Your task to perform on an android device: Open calendar and show me the third week of next month Image 0: 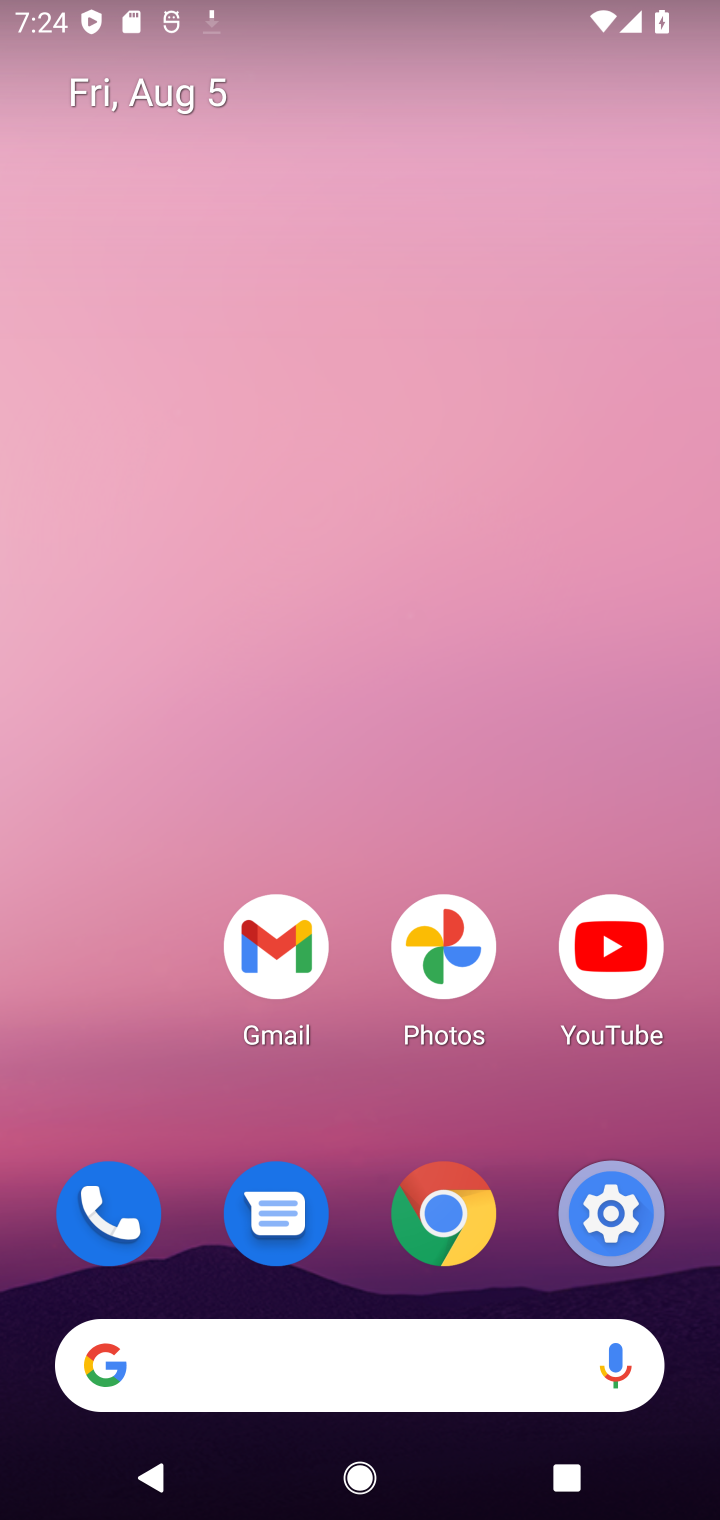
Step 0: drag from (147, 1356) to (418, 171)
Your task to perform on an android device: Open calendar and show me the third week of next month Image 1: 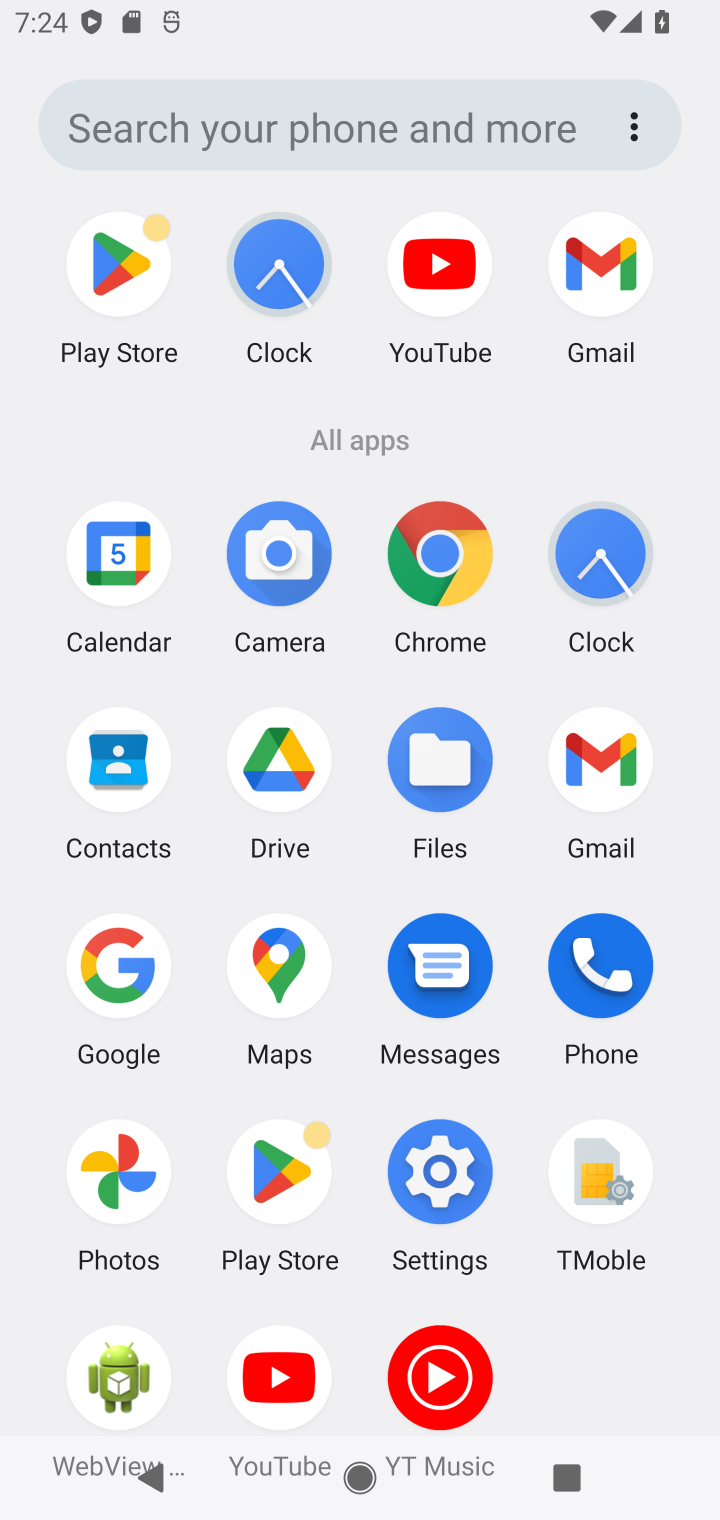
Step 1: click (99, 543)
Your task to perform on an android device: Open calendar and show me the third week of next month Image 2: 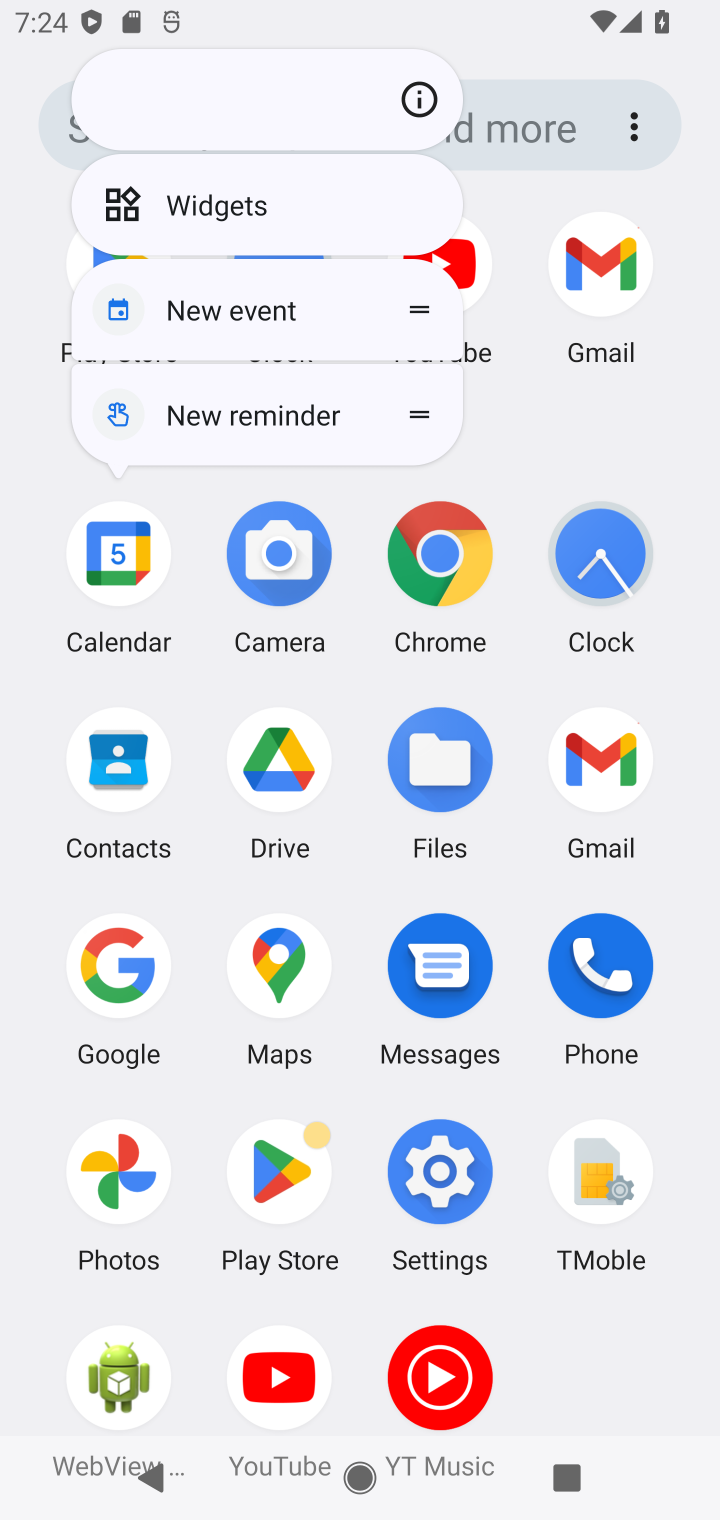
Step 2: click (99, 543)
Your task to perform on an android device: Open calendar and show me the third week of next month Image 3: 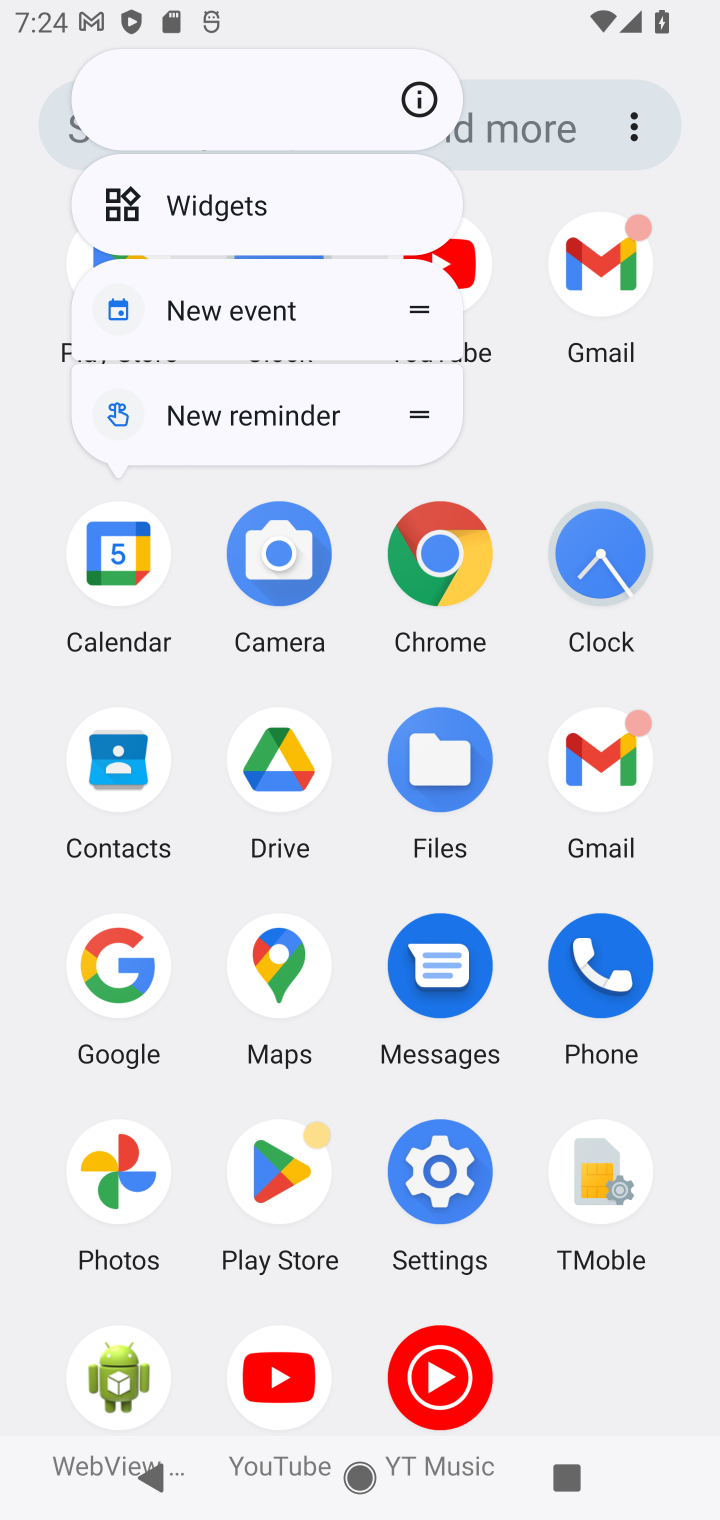
Step 3: click (126, 572)
Your task to perform on an android device: Open calendar and show me the third week of next month Image 4: 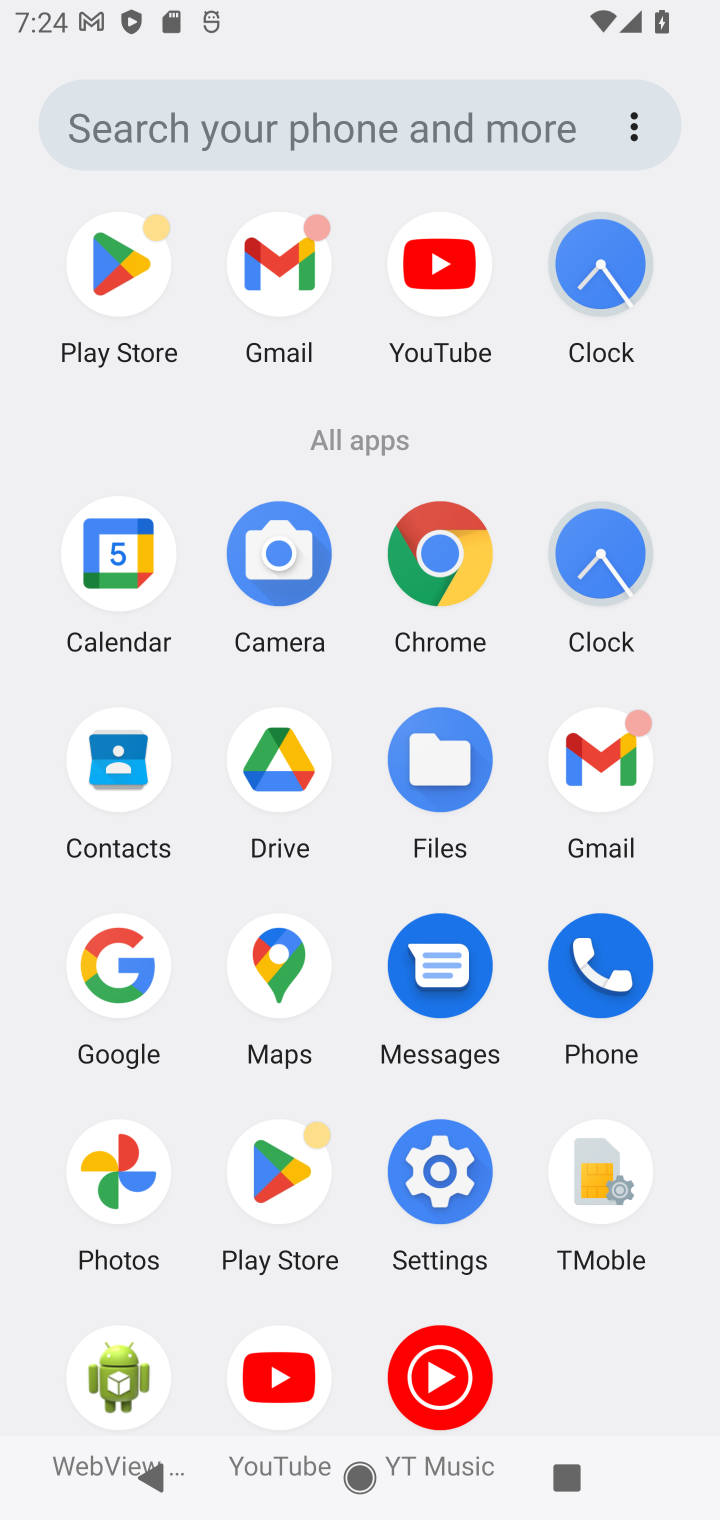
Step 4: click (126, 572)
Your task to perform on an android device: Open calendar and show me the third week of next month Image 5: 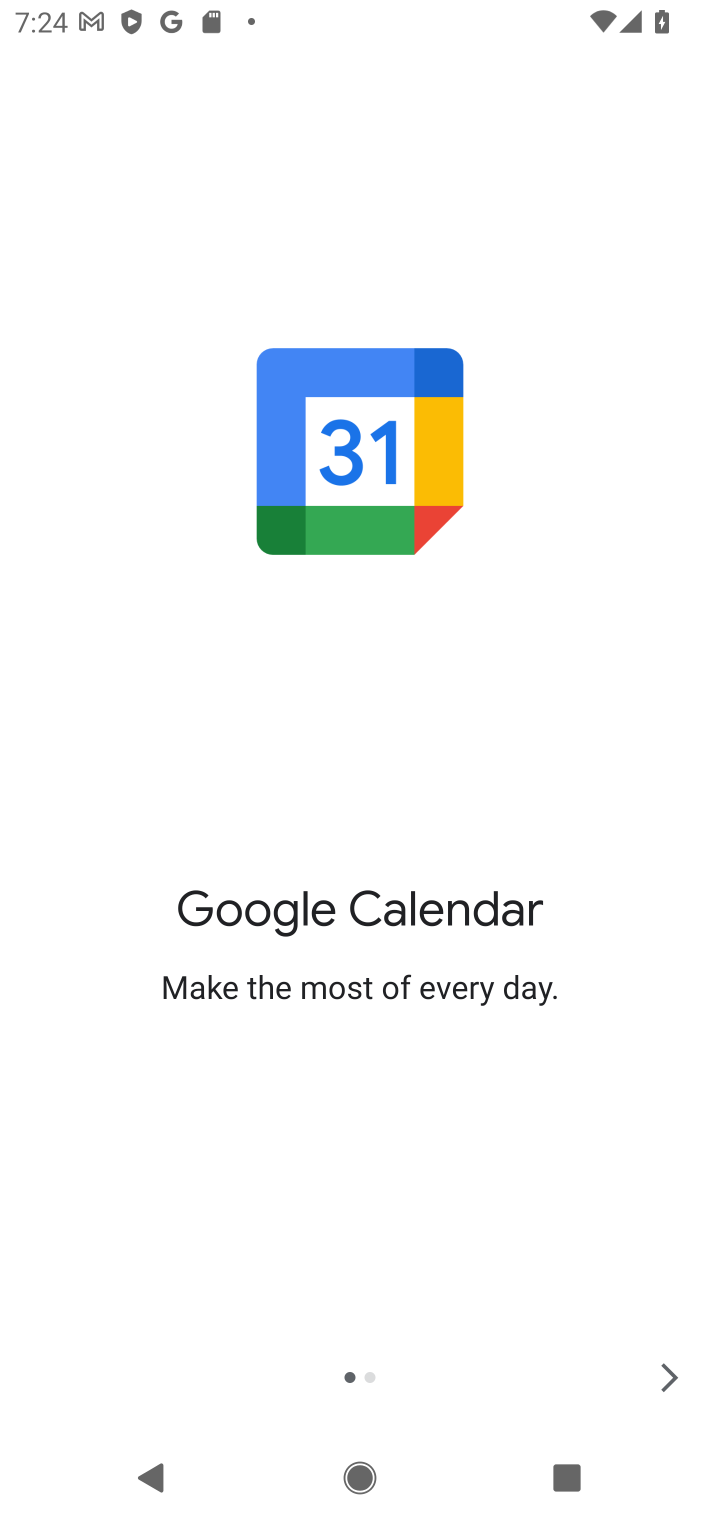
Step 5: click (643, 1364)
Your task to perform on an android device: Open calendar and show me the third week of next month Image 6: 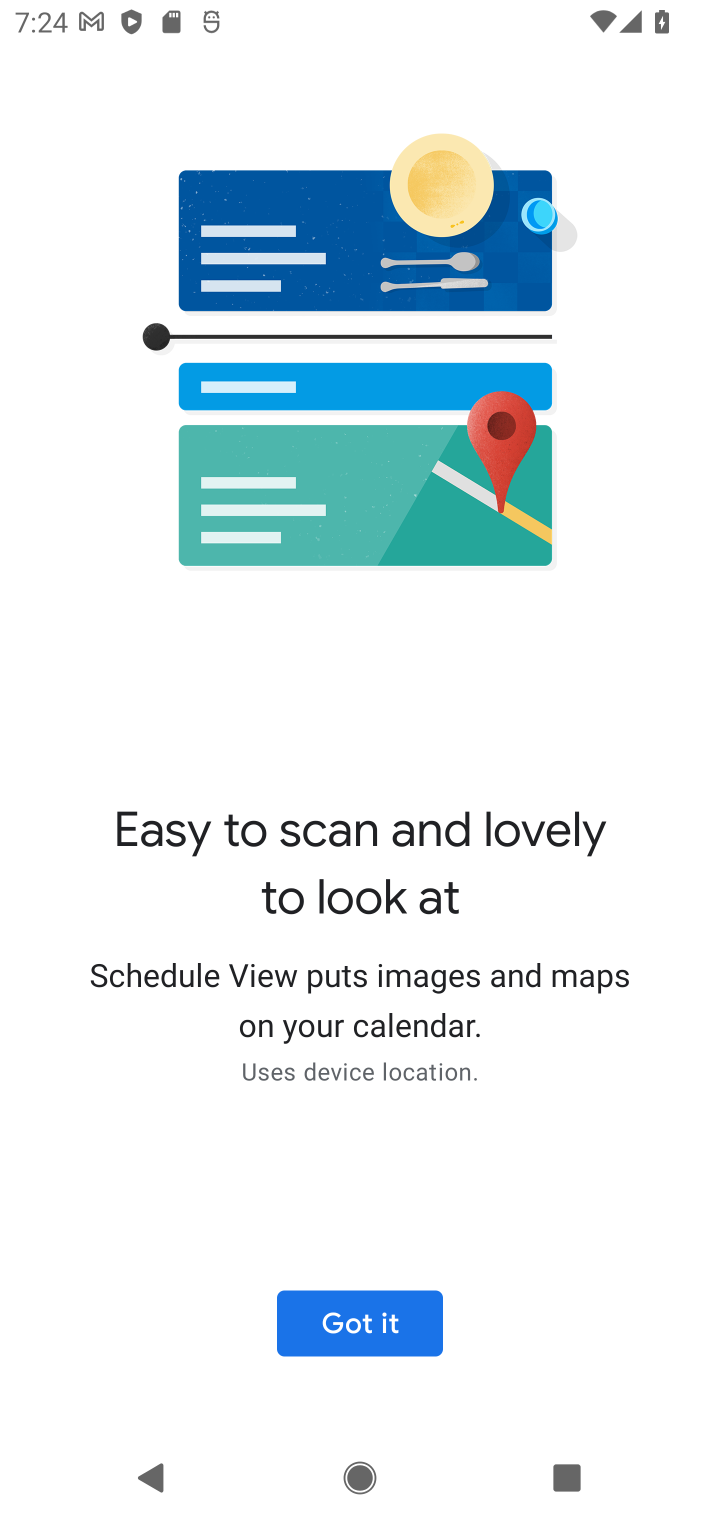
Step 6: click (390, 1328)
Your task to perform on an android device: Open calendar and show me the third week of next month Image 7: 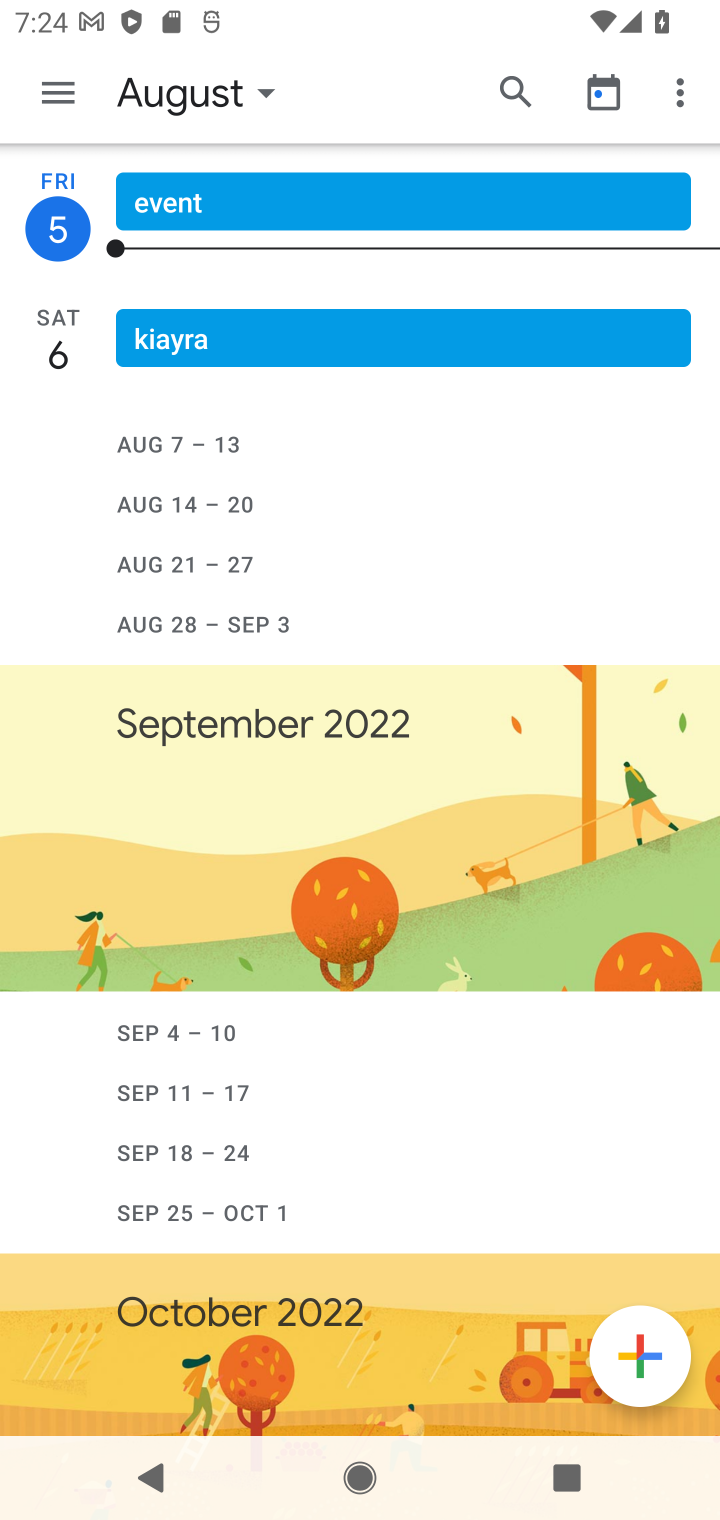
Step 7: click (79, 93)
Your task to perform on an android device: Open calendar and show me the third week of next month Image 8: 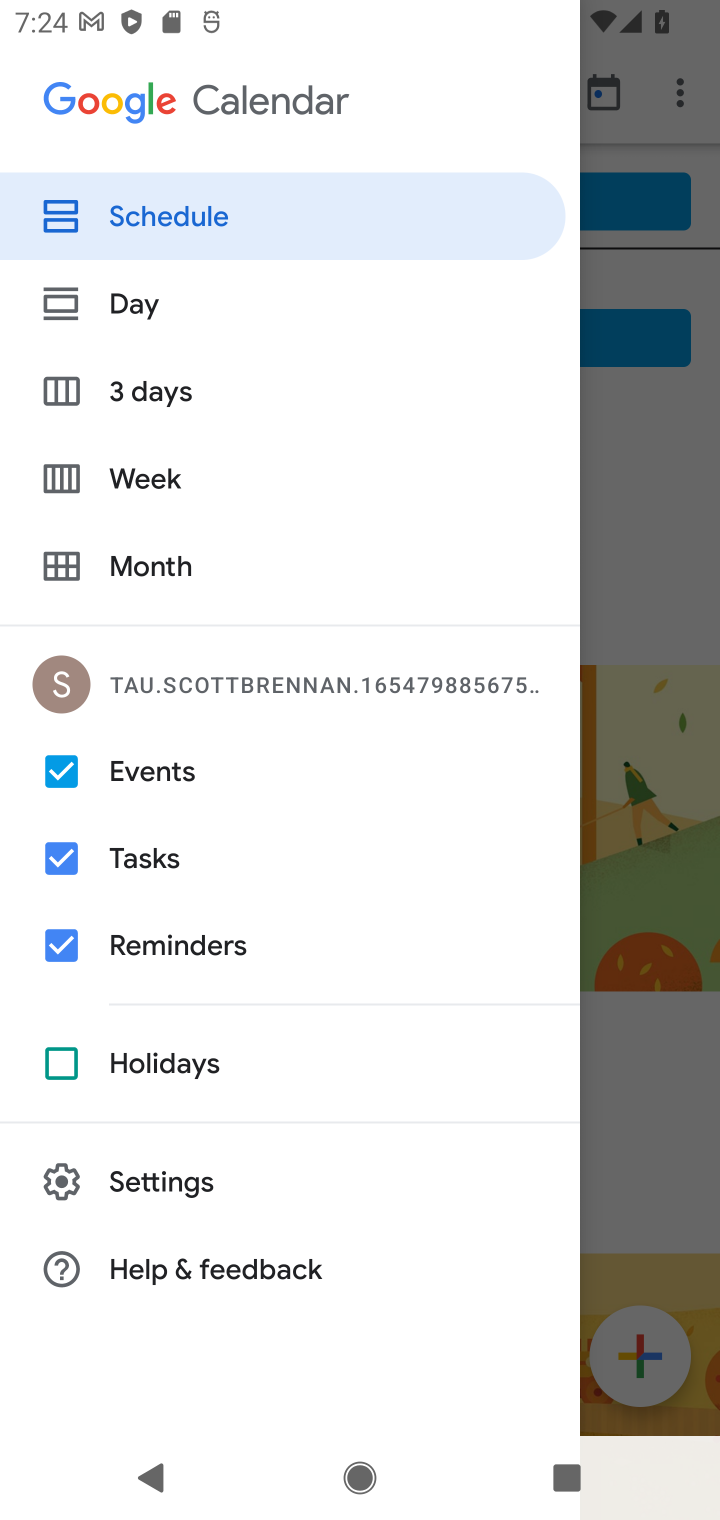
Step 8: click (155, 561)
Your task to perform on an android device: Open calendar and show me the third week of next month Image 9: 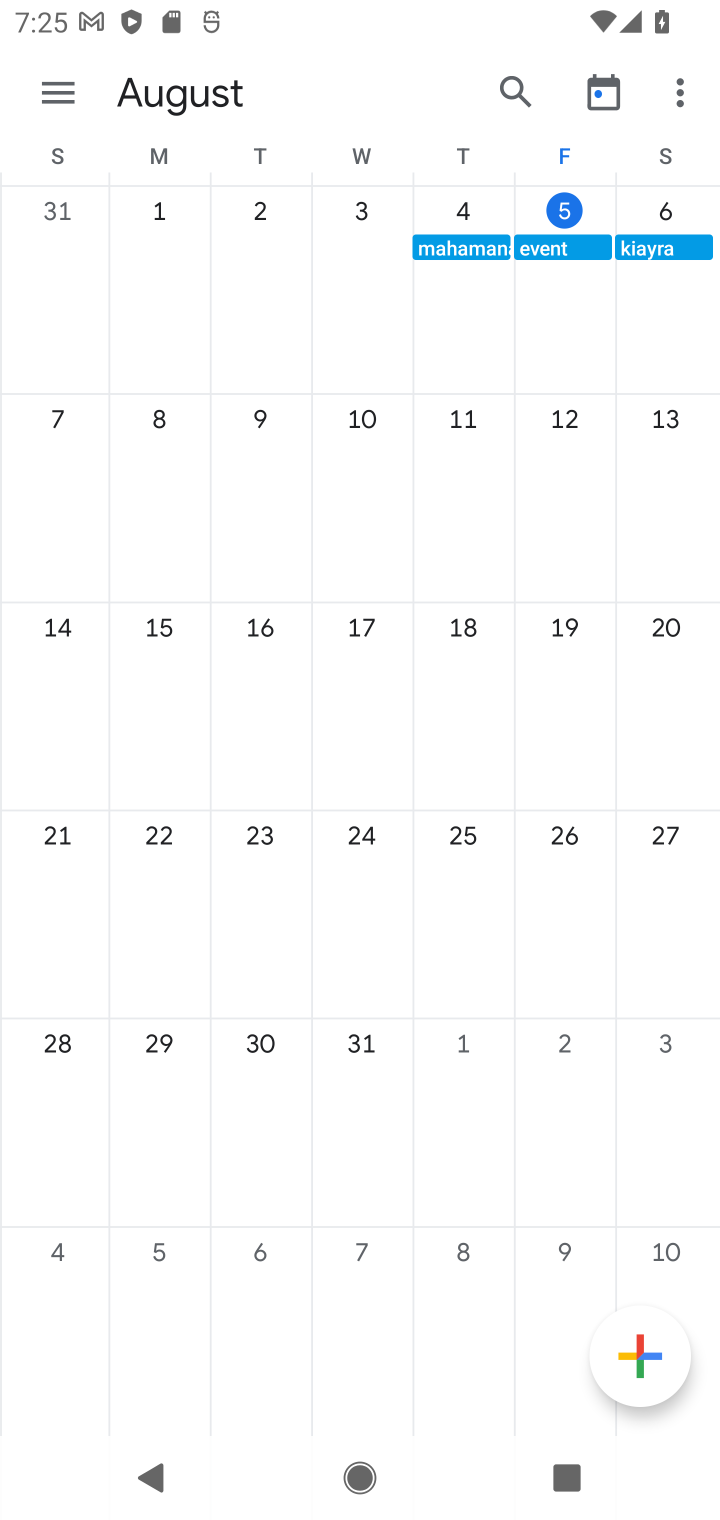
Step 9: click (63, 100)
Your task to perform on an android device: Open calendar and show me the third week of next month Image 10: 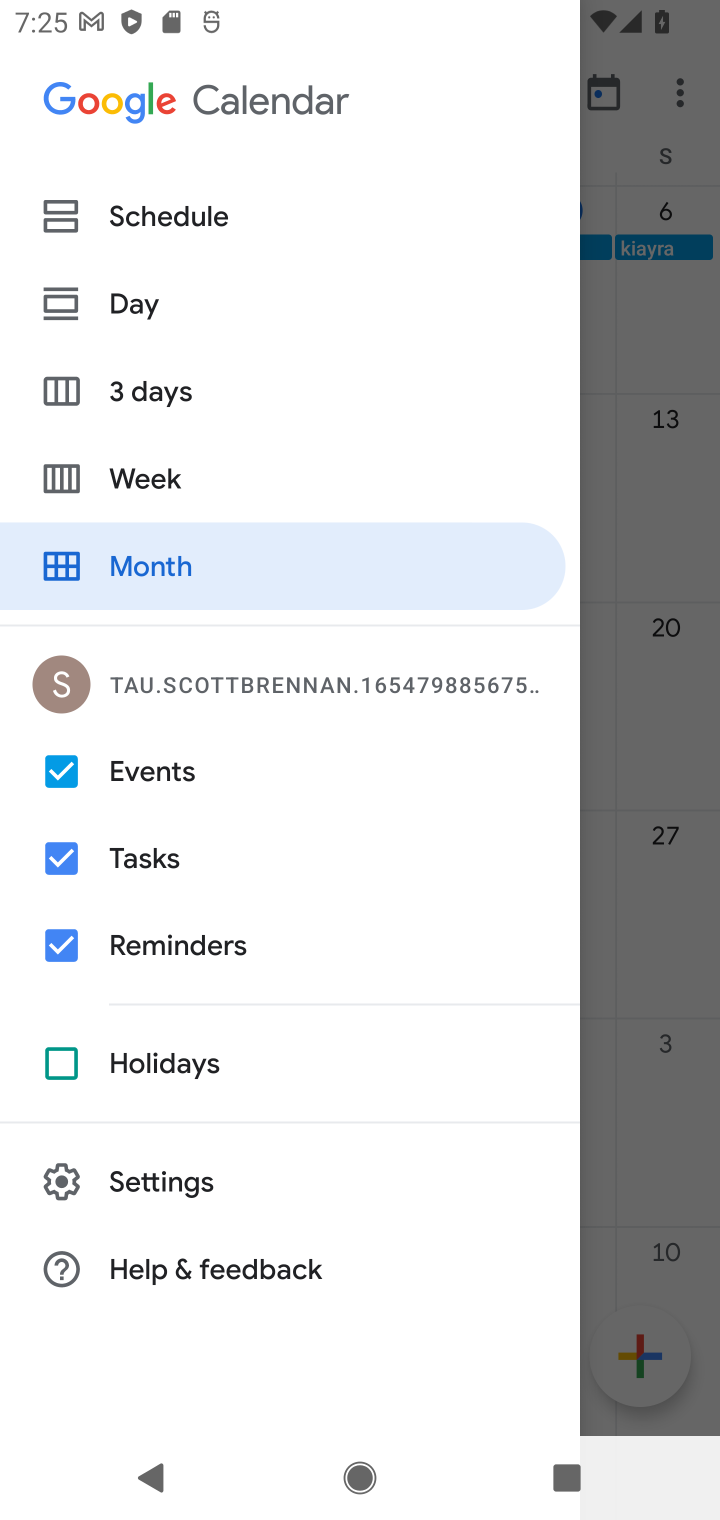
Step 10: click (161, 452)
Your task to perform on an android device: Open calendar and show me the third week of next month Image 11: 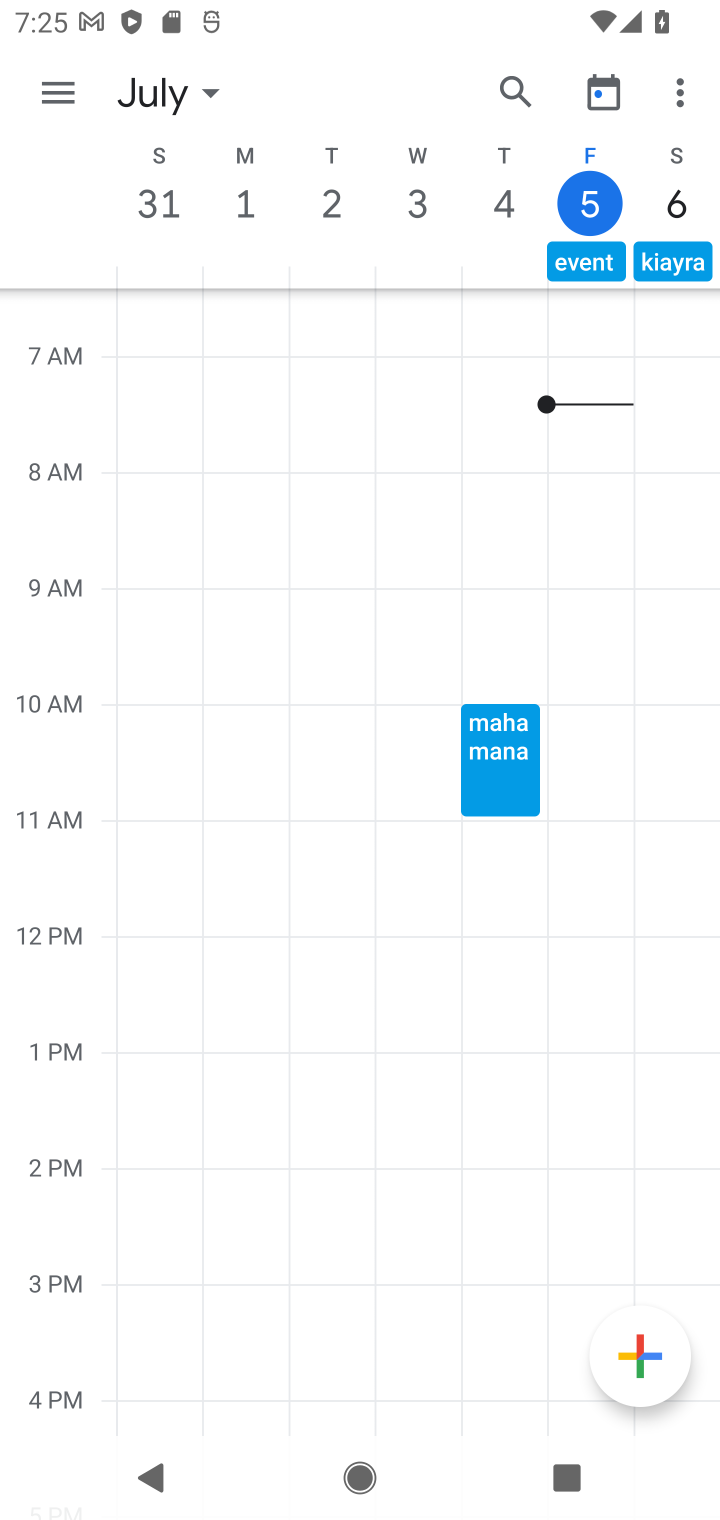
Step 11: task complete